Your task to perform on an android device: remove spam from my inbox in the gmail app Image 0: 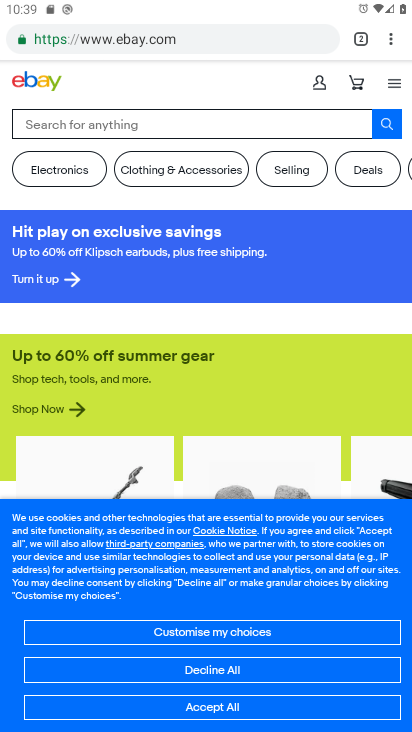
Step 0: press home button
Your task to perform on an android device: remove spam from my inbox in the gmail app Image 1: 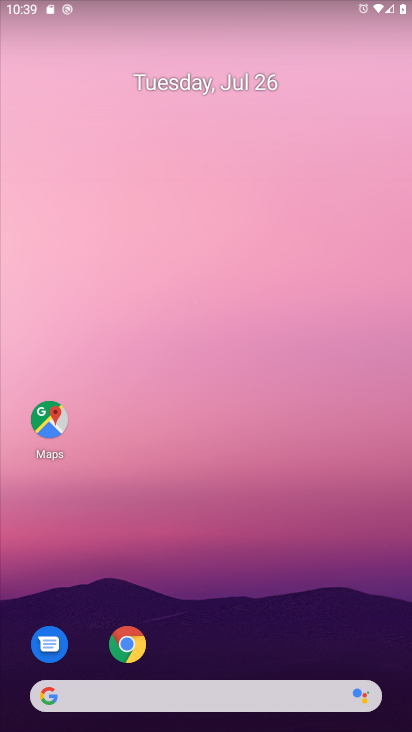
Step 1: drag from (197, 631) to (184, 325)
Your task to perform on an android device: remove spam from my inbox in the gmail app Image 2: 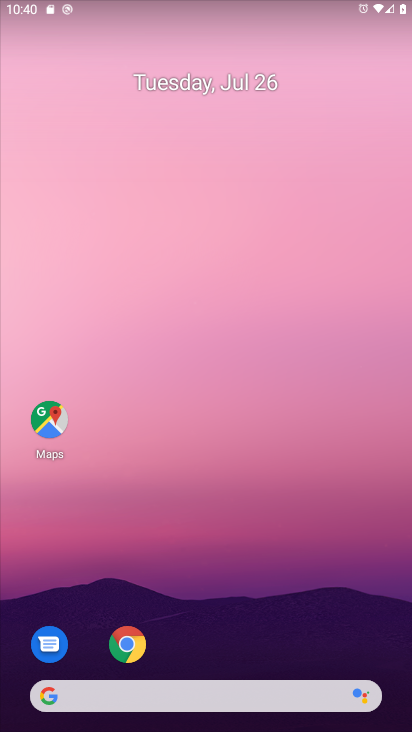
Step 2: drag from (209, 638) to (407, 98)
Your task to perform on an android device: remove spam from my inbox in the gmail app Image 3: 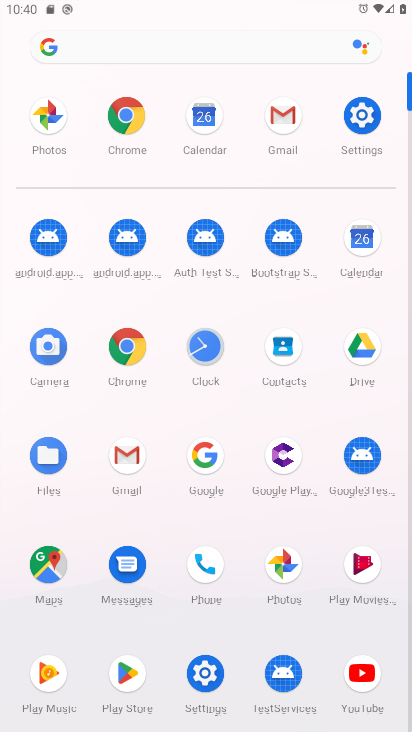
Step 3: click (122, 452)
Your task to perform on an android device: remove spam from my inbox in the gmail app Image 4: 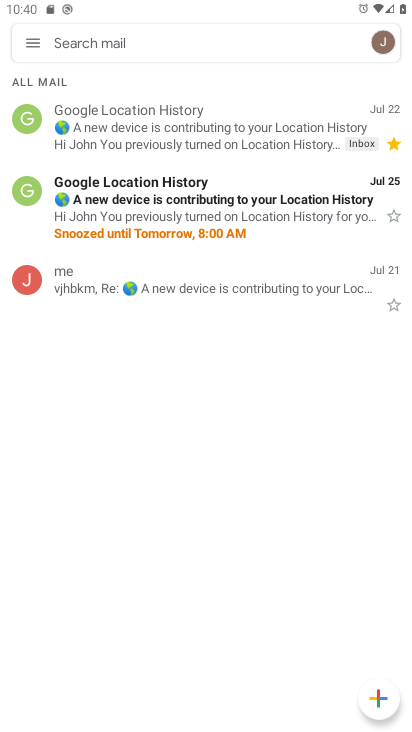
Step 4: click (38, 48)
Your task to perform on an android device: remove spam from my inbox in the gmail app Image 5: 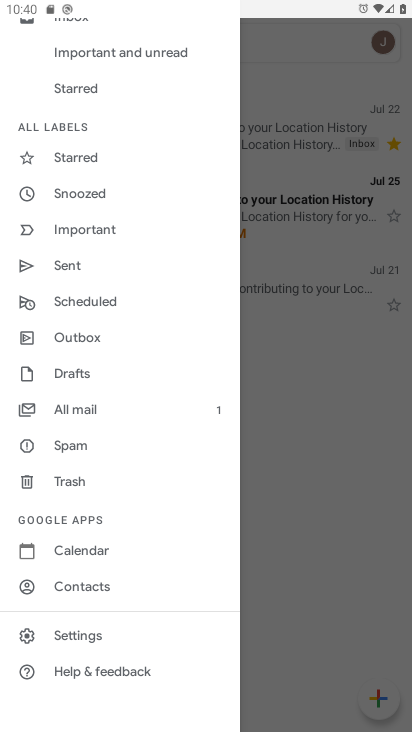
Step 5: click (79, 447)
Your task to perform on an android device: remove spam from my inbox in the gmail app Image 6: 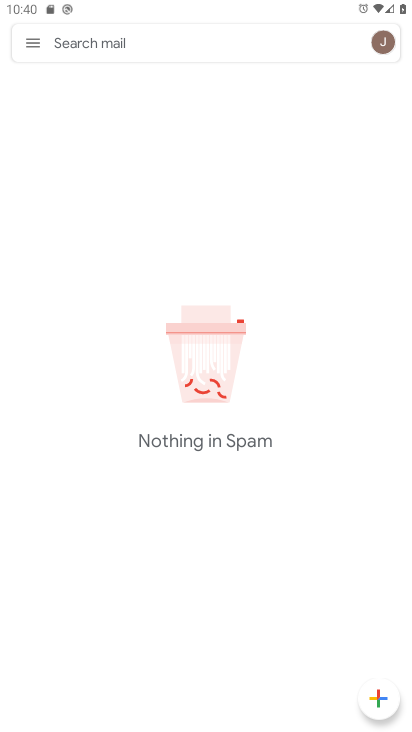
Step 6: task complete